Your task to perform on an android device: Go to calendar. Show me events next week Image 0: 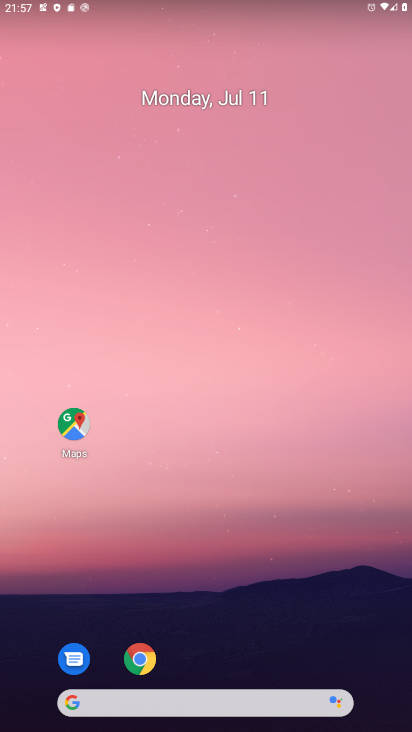
Step 0: drag from (195, 649) to (220, 306)
Your task to perform on an android device: Go to calendar. Show me events next week Image 1: 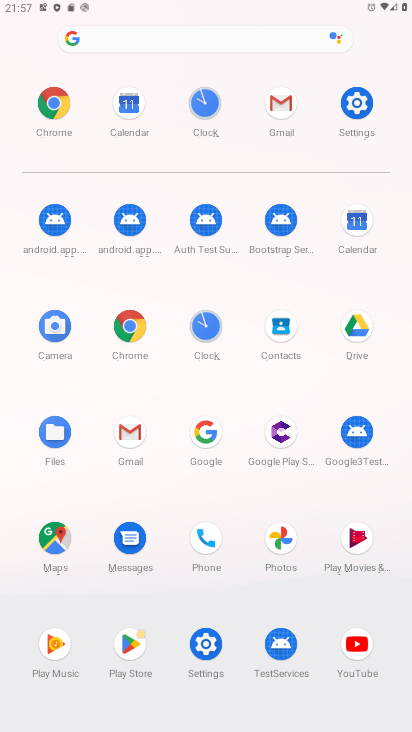
Step 1: click (357, 221)
Your task to perform on an android device: Go to calendar. Show me events next week Image 2: 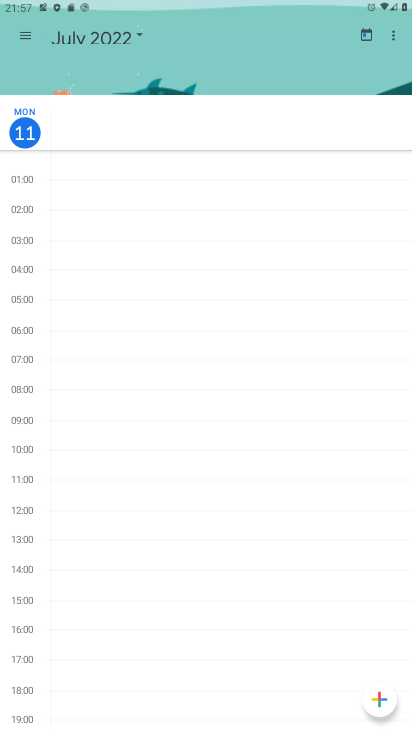
Step 2: click (106, 31)
Your task to perform on an android device: Go to calendar. Show me events next week Image 3: 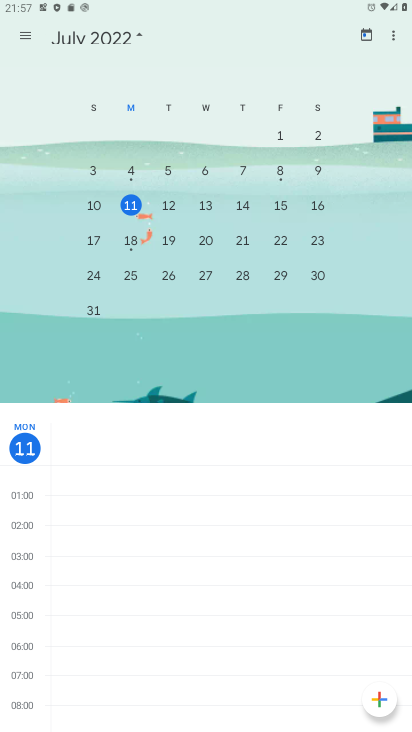
Step 3: drag from (332, 213) to (0, 204)
Your task to perform on an android device: Go to calendar. Show me events next week Image 4: 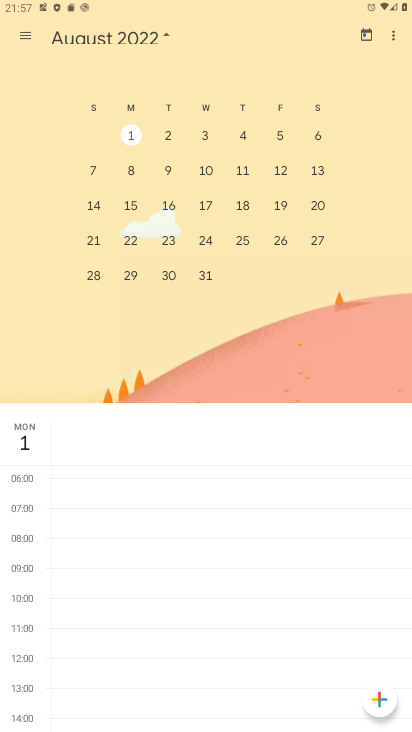
Step 4: drag from (113, 197) to (405, 244)
Your task to perform on an android device: Go to calendar. Show me events next week Image 5: 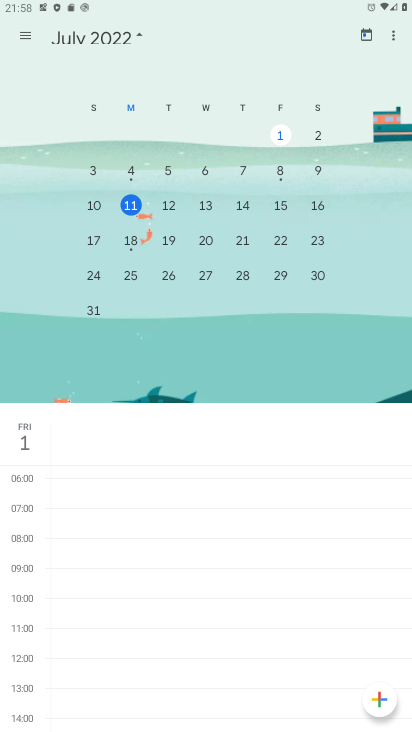
Step 5: click (205, 239)
Your task to perform on an android device: Go to calendar. Show me events next week Image 6: 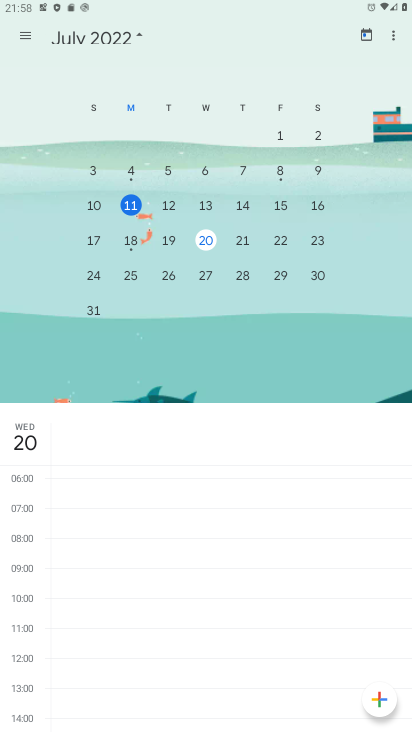
Step 6: task complete